Your task to perform on an android device: open chrome privacy settings Image 0: 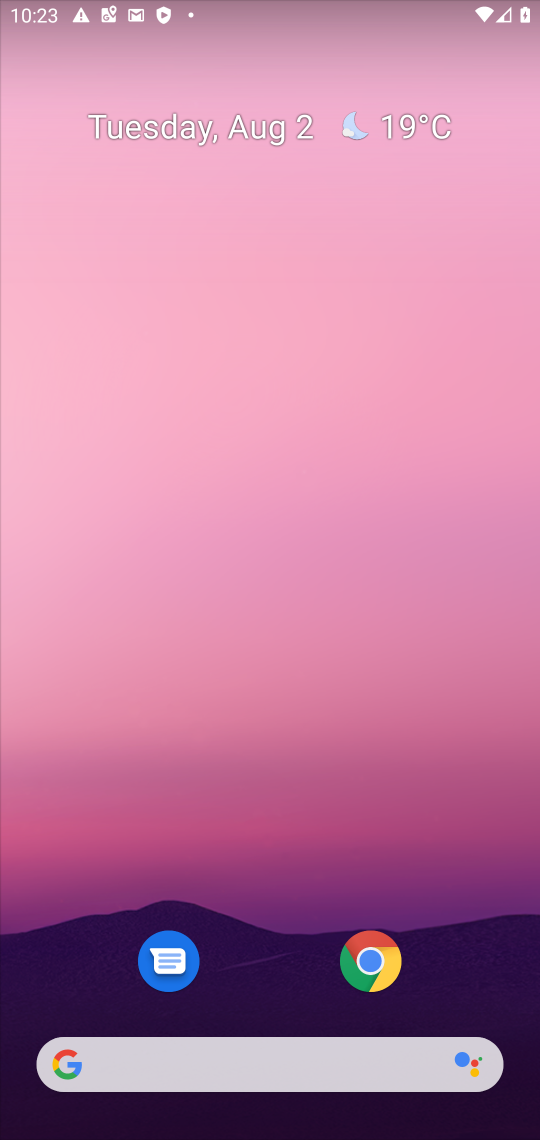
Step 0: press home button
Your task to perform on an android device: open chrome privacy settings Image 1: 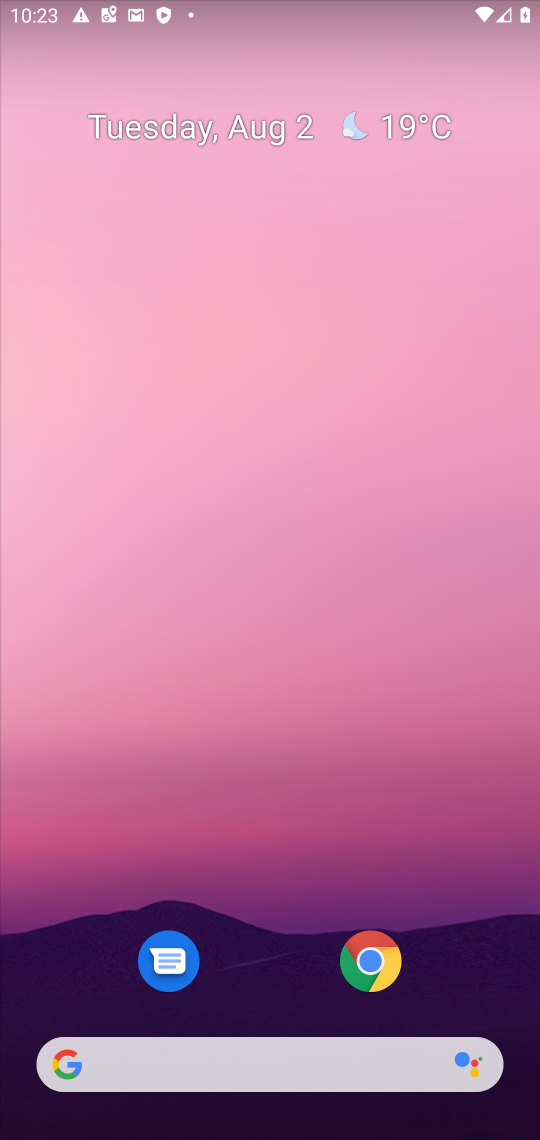
Step 1: drag from (240, 980) to (387, 340)
Your task to perform on an android device: open chrome privacy settings Image 2: 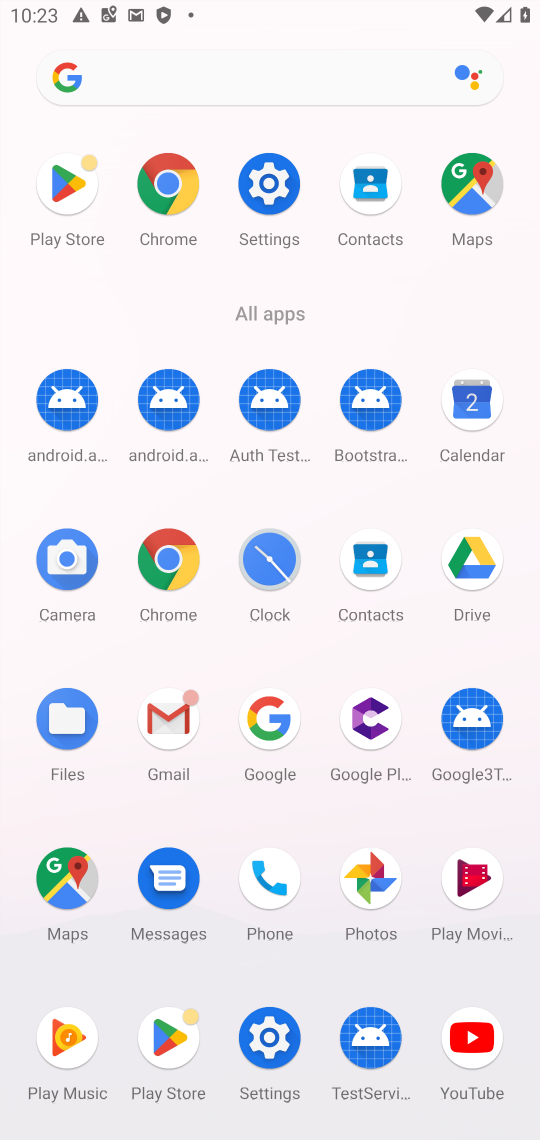
Step 2: click (176, 230)
Your task to perform on an android device: open chrome privacy settings Image 3: 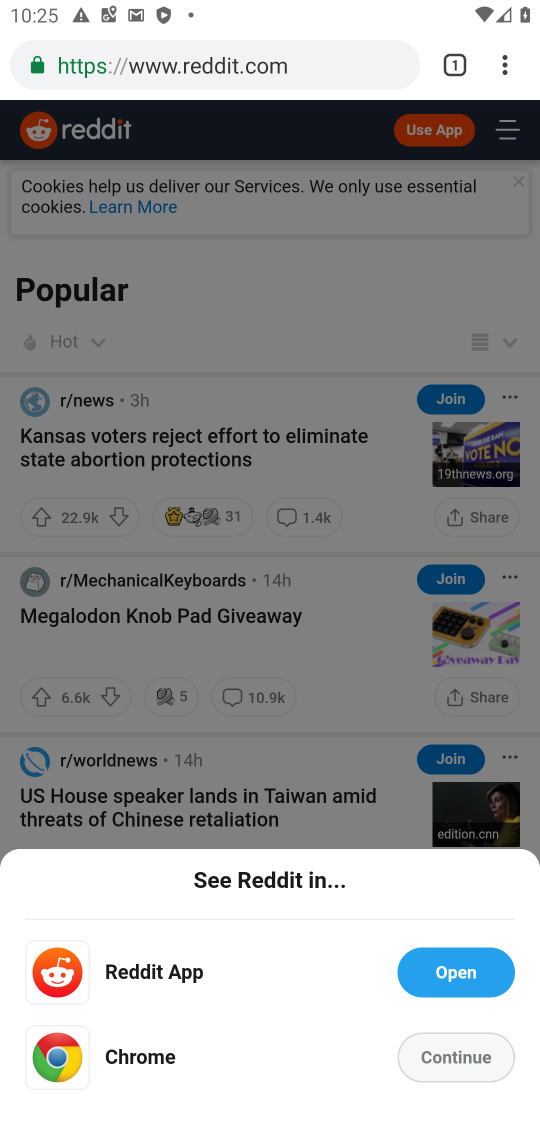
Step 3: drag from (512, 72) to (258, 870)
Your task to perform on an android device: open chrome privacy settings Image 4: 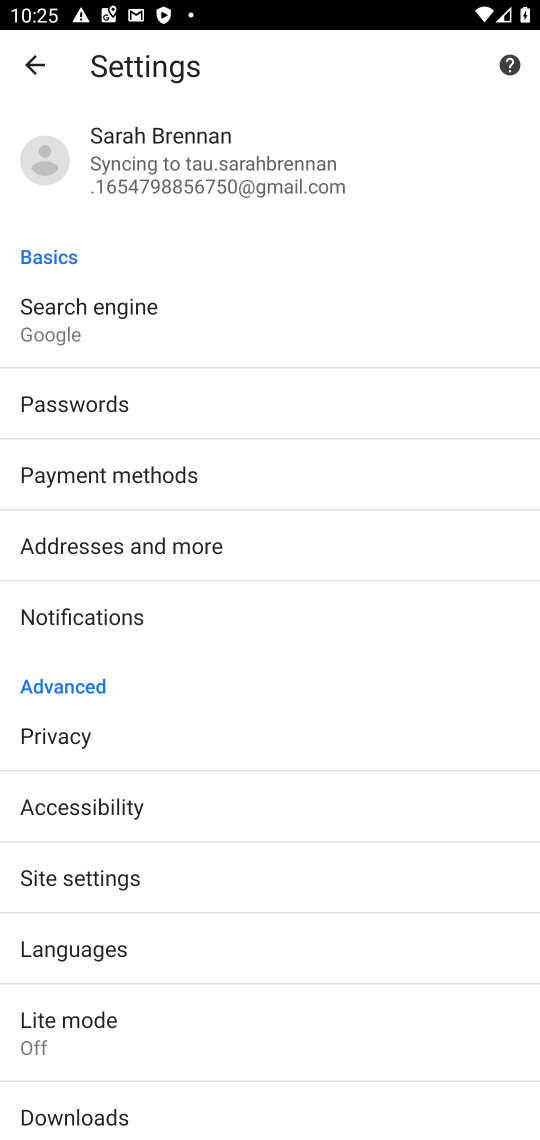
Step 4: click (82, 725)
Your task to perform on an android device: open chrome privacy settings Image 5: 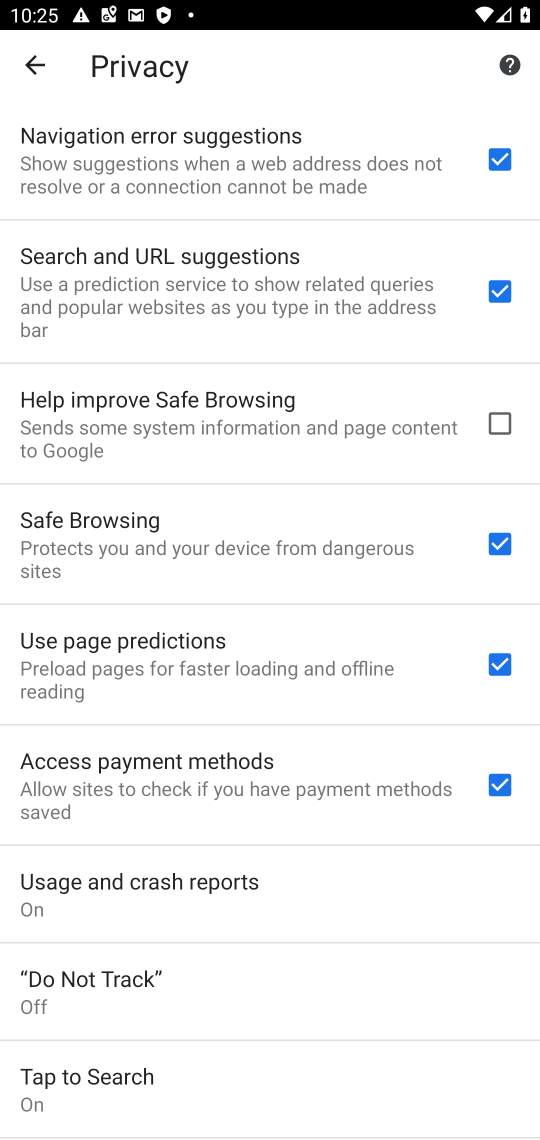
Step 5: drag from (316, 1010) to (310, 696)
Your task to perform on an android device: open chrome privacy settings Image 6: 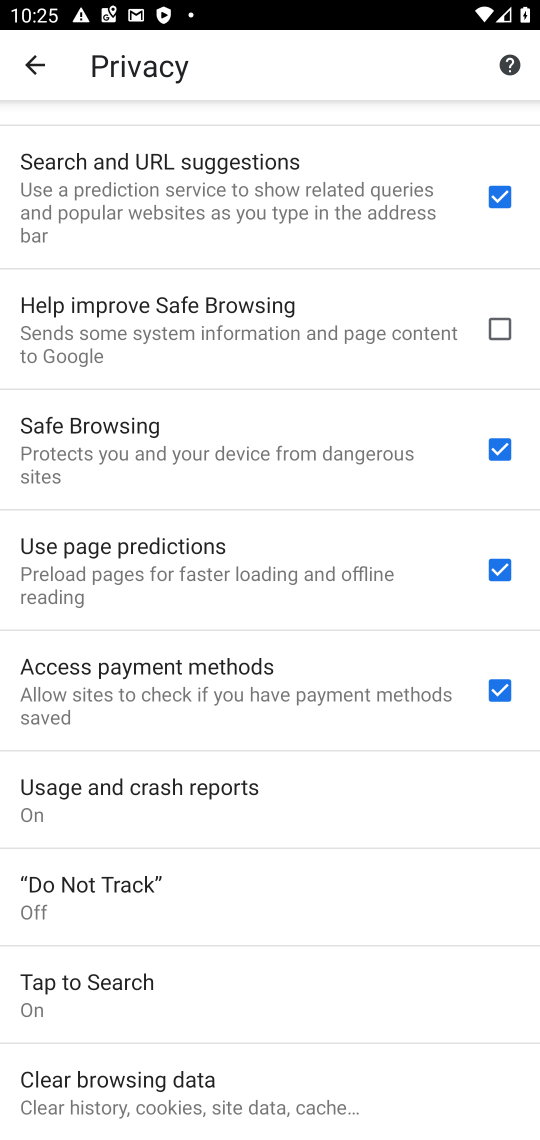
Step 6: click (23, 1092)
Your task to perform on an android device: open chrome privacy settings Image 7: 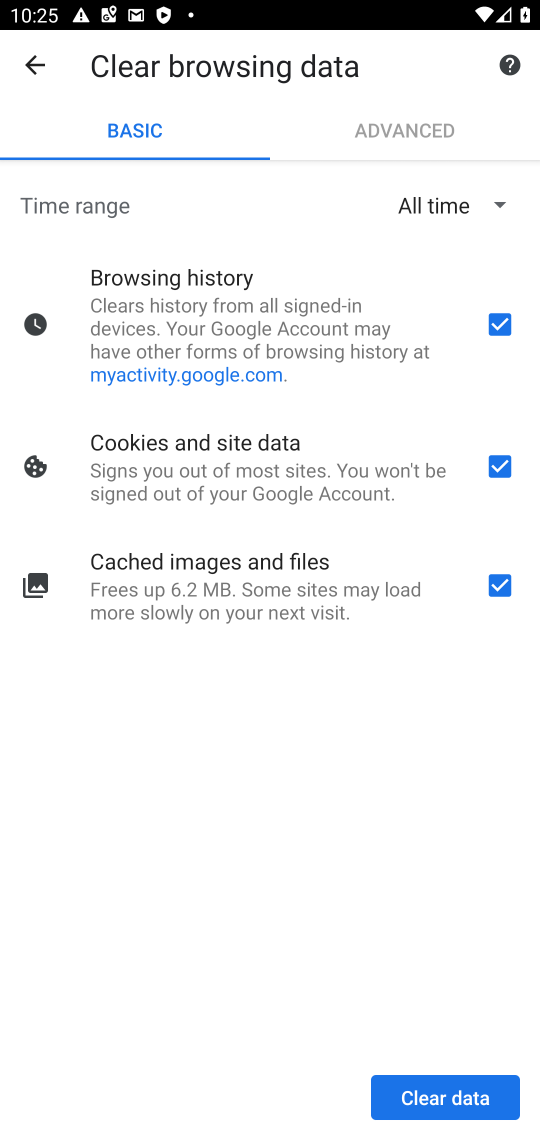
Step 7: click (463, 1092)
Your task to perform on an android device: open chrome privacy settings Image 8: 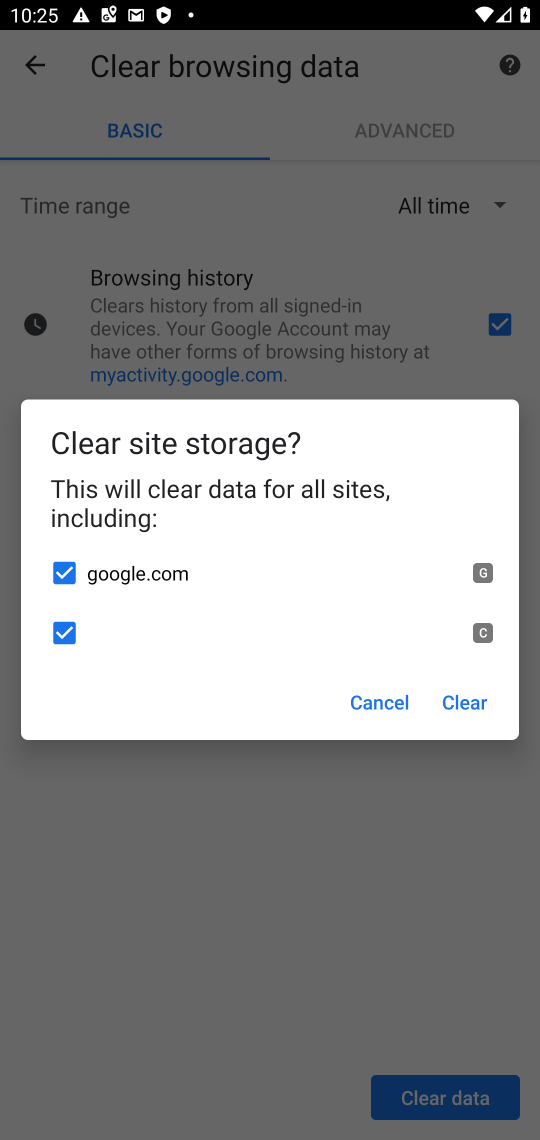
Step 8: click (461, 715)
Your task to perform on an android device: open chrome privacy settings Image 9: 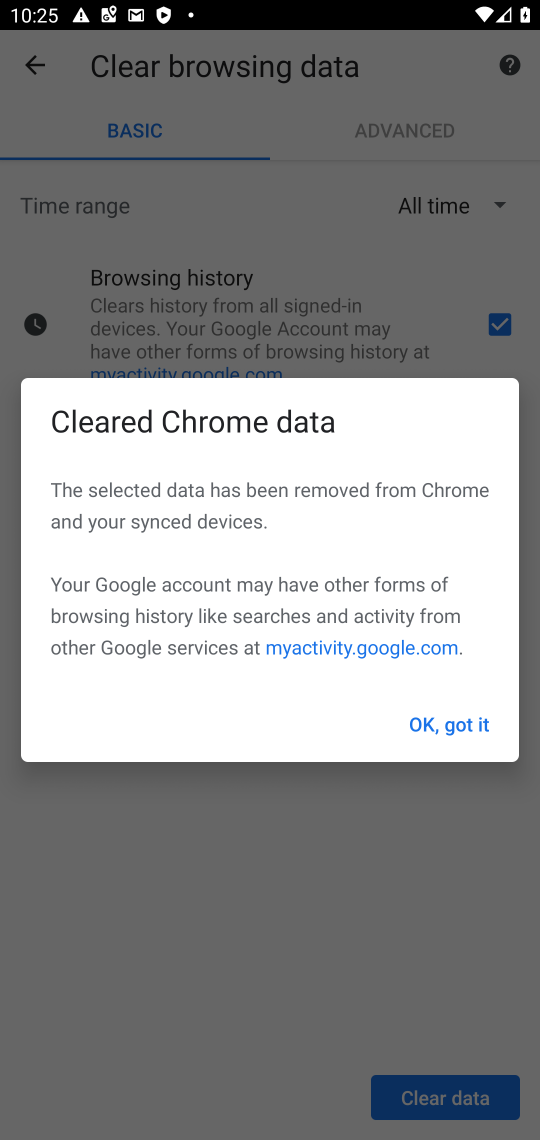
Step 9: click (461, 712)
Your task to perform on an android device: open chrome privacy settings Image 10: 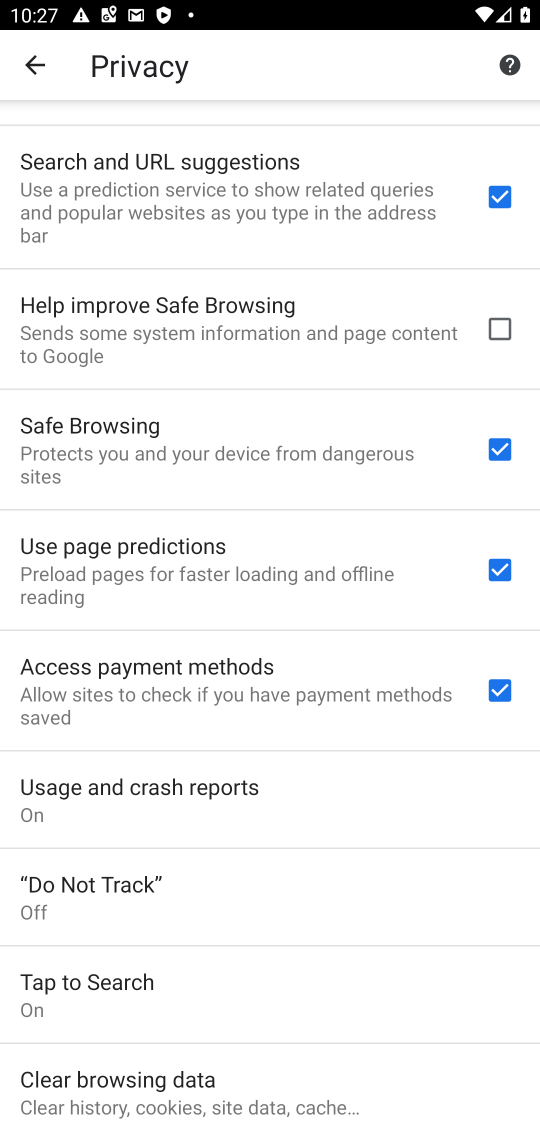
Step 10: click (148, 1110)
Your task to perform on an android device: open chrome privacy settings Image 11: 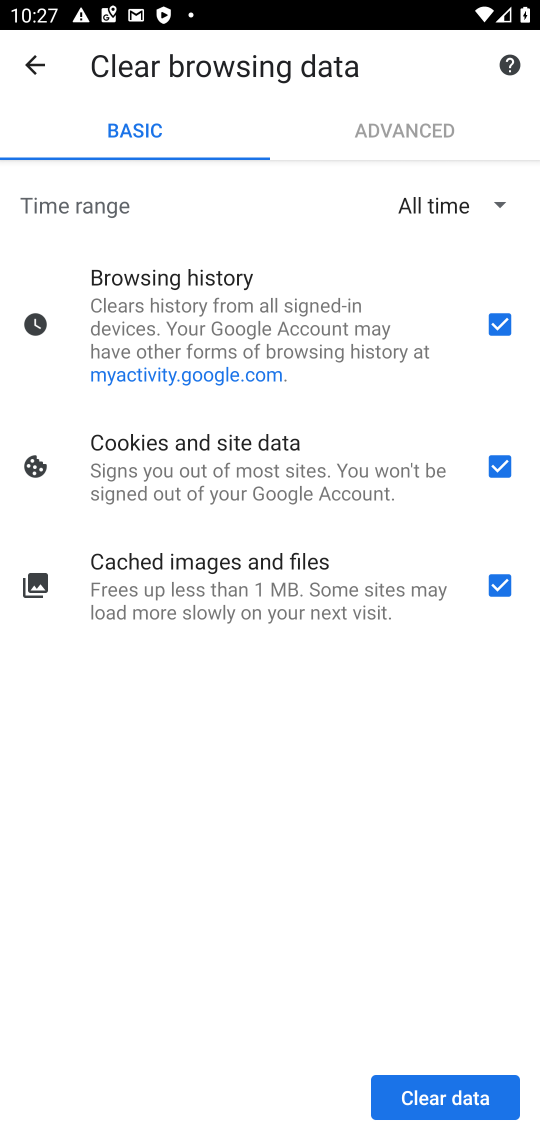
Step 11: click (460, 1087)
Your task to perform on an android device: open chrome privacy settings Image 12: 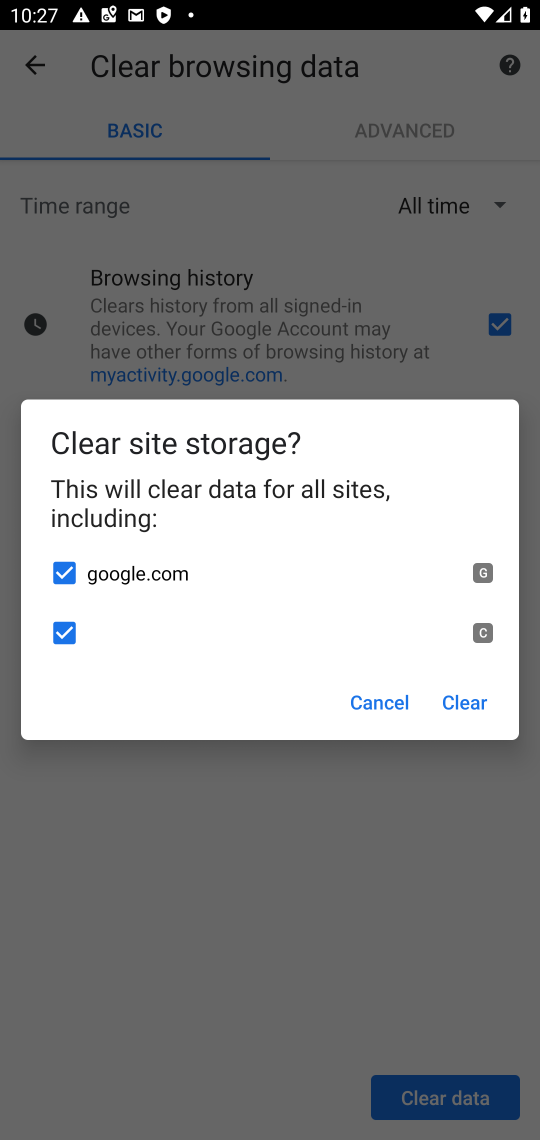
Step 12: click (467, 694)
Your task to perform on an android device: open chrome privacy settings Image 13: 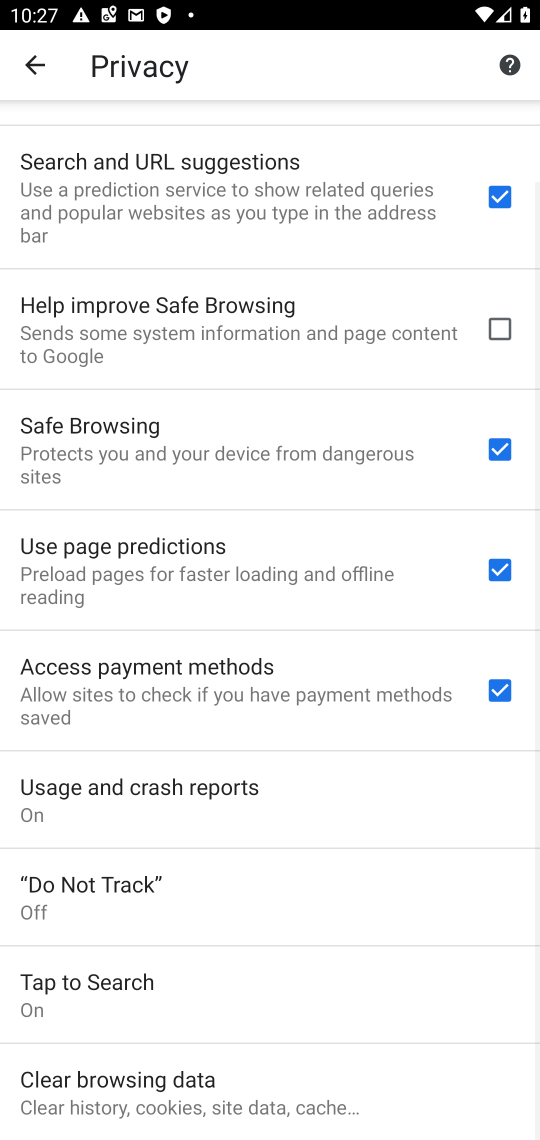
Step 13: task complete